Your task to perform on an android device: Open Google Chrome and open the bookmarks view Image 0: 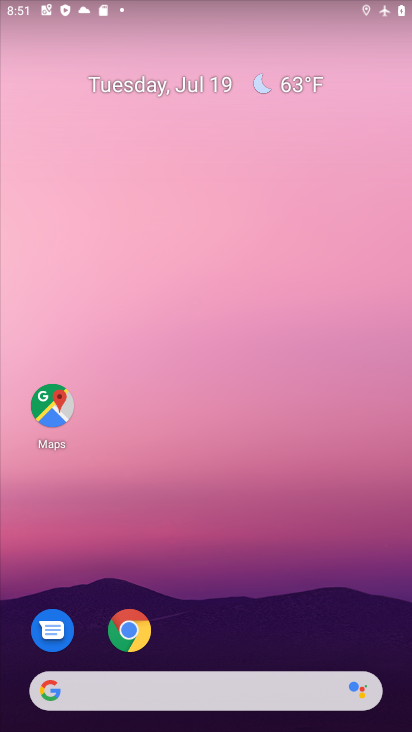
Step 0: click (130, 631)
Your task to perform on an android device: Open Google Chrome and open the bookmarks view Image 1: 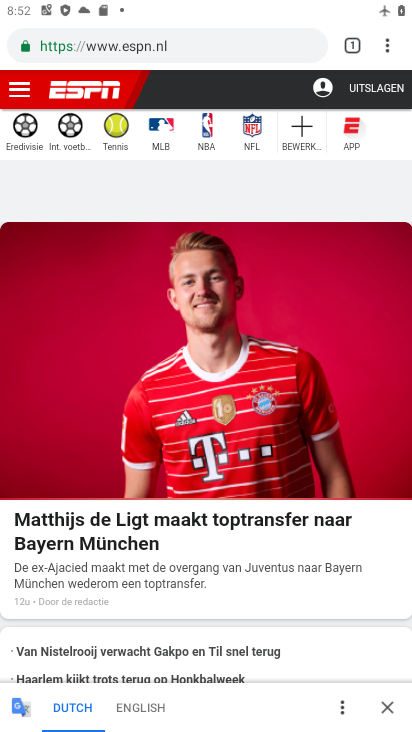
Step 1: click (388, 45)
Your task to perform on an android device: Open Google Chrome and open the bookmarks view Image 2: 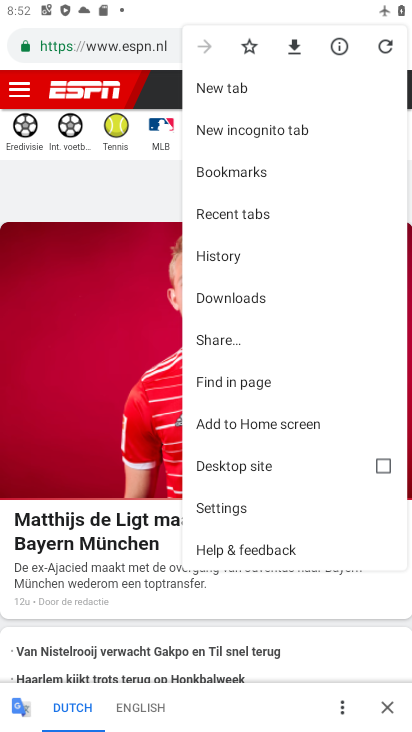
Step 2: click (250, 172)
Your task to perform on an android device: Open Google Chrome and open the bookmarks view Image 3: 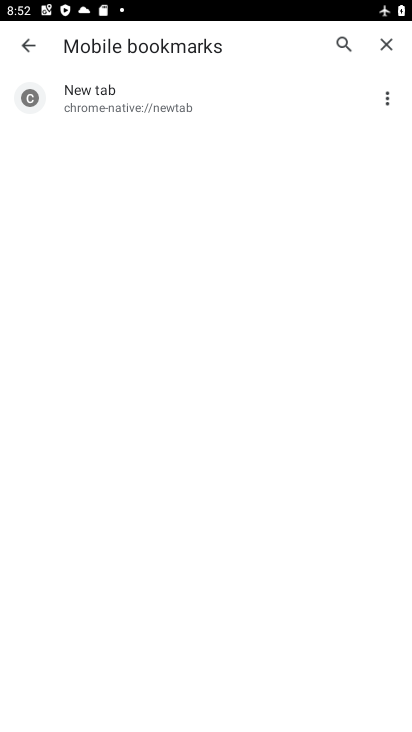
Step 3: task complete